Your task to perform on an android device: Go to ESPN.com Image 0: 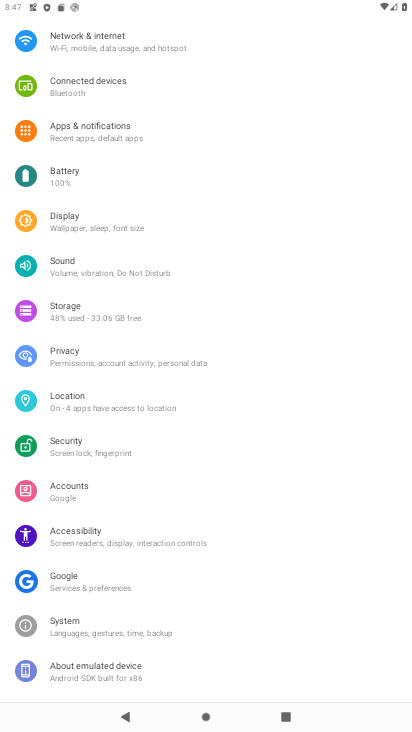
Step 0: press home button
Your task to perform on an android device: Go to ESPN.com Image 1: 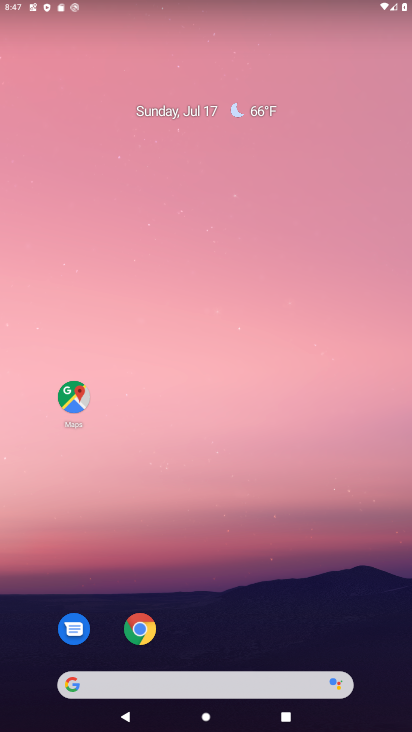
Step 1: click (137, 625)
Your task to perform on an android device: Go to ESPN.com Image 2: 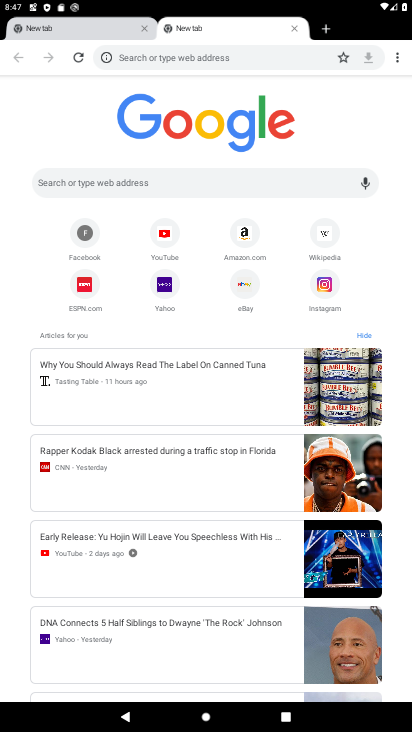
Step 2: click (84, 279)
Your task to perform on an android device: Go to ESPN.com Image 3: 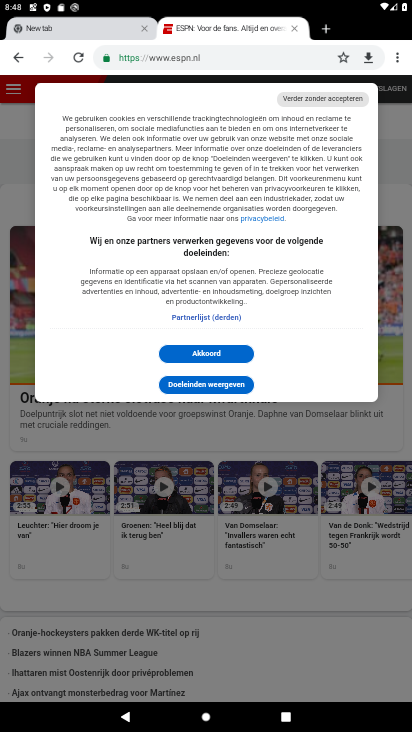
Step 3: click (287, 31)
Your task to perform on an android device: Go to ESPN.com Image 4: 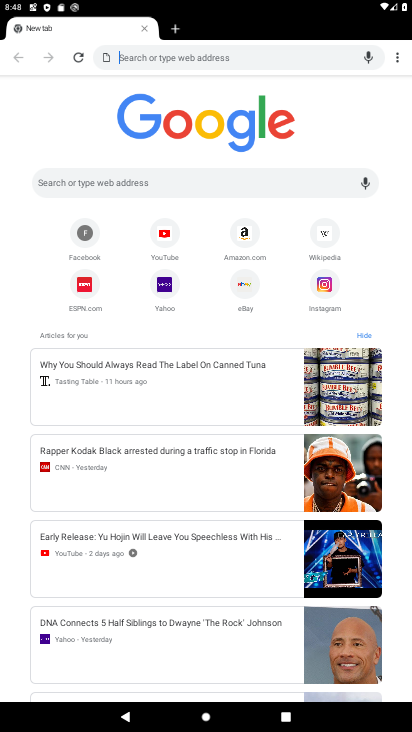
Step 4: click (293, 29)
Your task to perform on an android device: Go to ESPN.com Image 5: 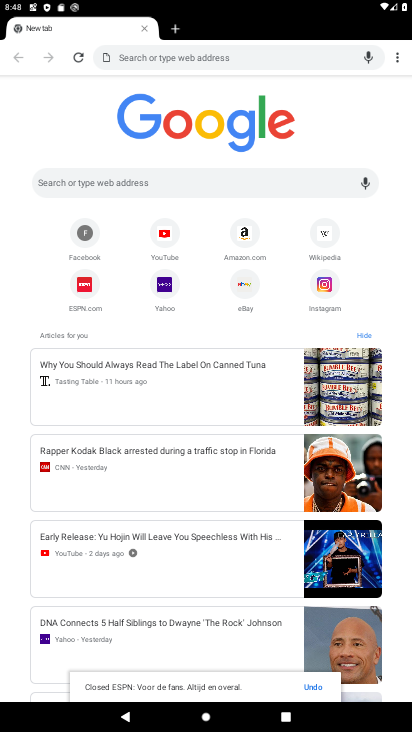
Step 5: click (175, 25)
Your task to perform on an android device: Go to ESPN.com Image 6: 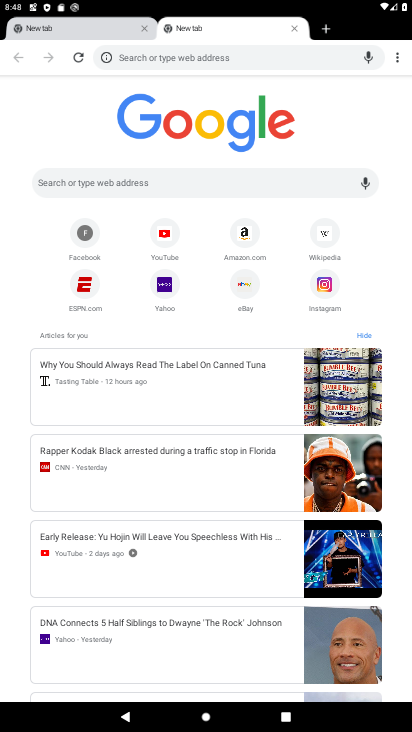
Step 6: click (90, 281)
Your task to perform on an android device: Go to ESPN.com Image 7: 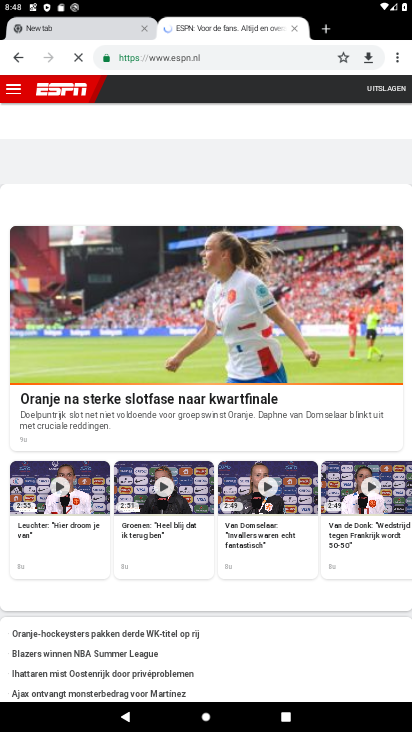
Step 7: drag from (220, 609) to (247, 178)
Your task to perform on an android device: Go to ESPN.com Image 8: 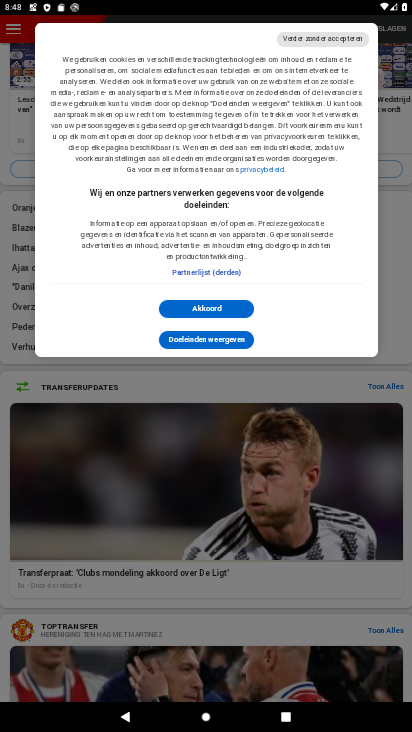
Step 8: click (210, 305)
Your task to perform on an android device: Go to ESPN.com Image 9: 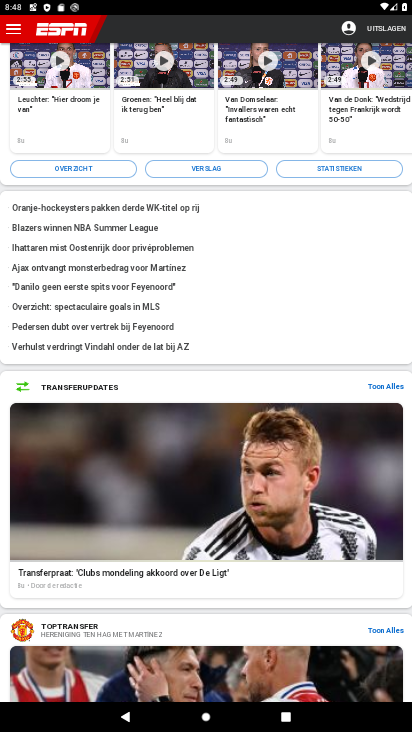
Step 9: task complete